Your task to perform on an android device: empty trash in the gmail app Image 0: 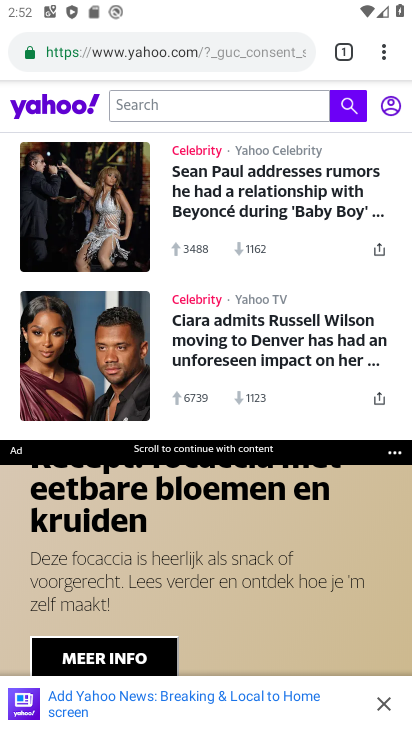
Step 0: press home button
Your task to perform on an android device: empty trash in the gmail app Image 1: 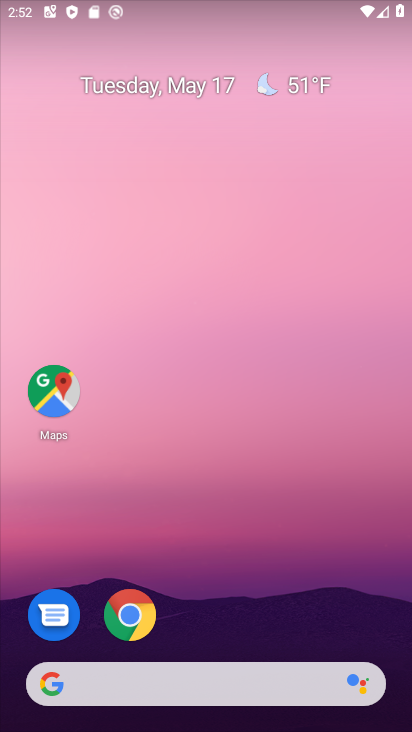
Step 1: drag from (225, 629) to (236, 201)
Your task to perform on an android device: empty trash in the gmail app Image 2: 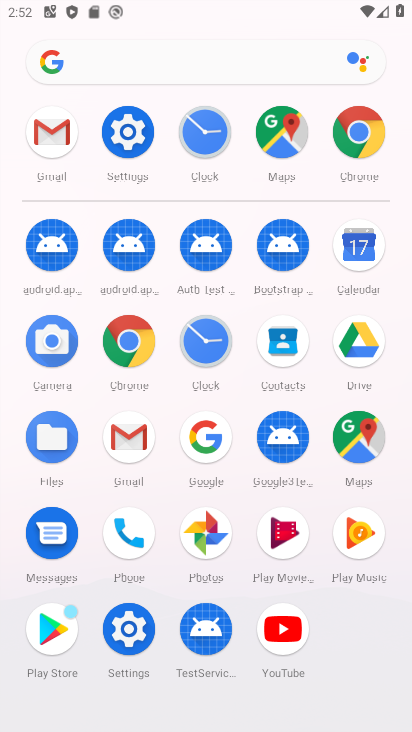
Step 2: click (49, 122)
Your task to perform on an android device: empty trash in the gmail app Image 3: 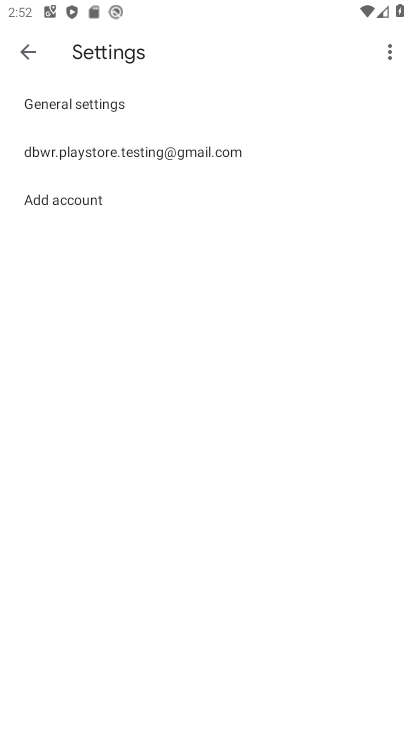
Step 3: click (30, 48)
Your task to perform on an android device: empty trash in the gmail app Image 4: 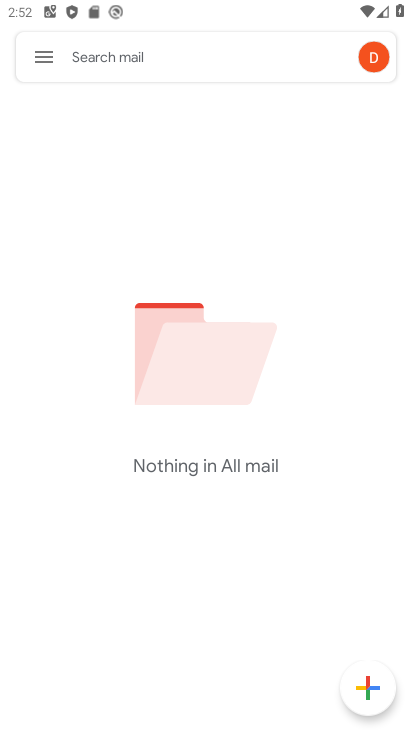
Step 4: click (35, 52)
Your task to perform on an android device: empty trash in the gmail app Image 5: 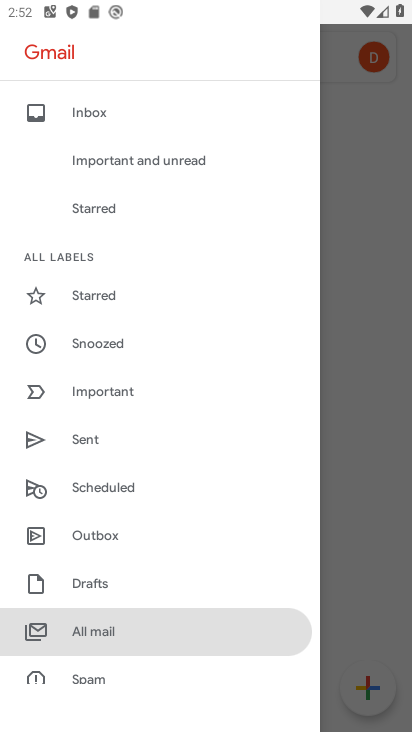
Step 5: drag from (126, 649) to (151, 208)
Your task to perform on an android device: empty trash in the gmail app Image 6: 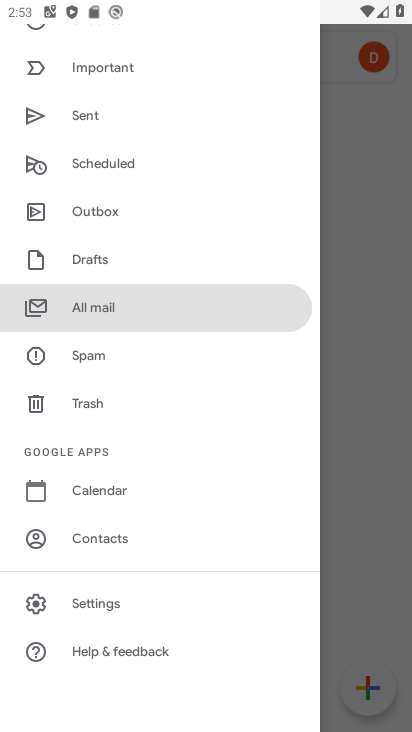
Step 6: click (106, 397)
Your task to perform on an android device: empty trash in the gmail app Image 7: 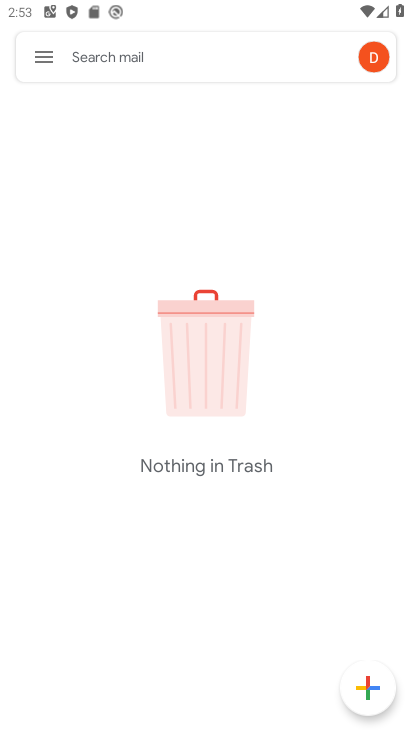
Step 7: task complete